Your task to perform on an android device: Open notification settings Image 0: 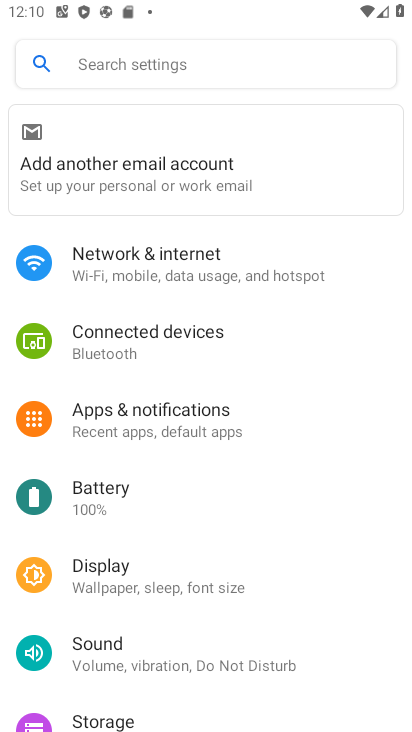
Step 0: drag from (306, 617) to (267, 257)
Your task to perform on an android device: Open notification settings Image 1: 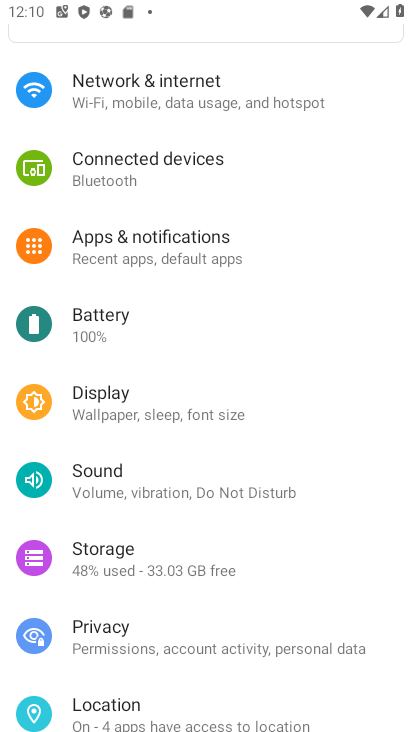
Step 1: drag from (350, 591) to (337, 267)
Your task to perform on an android device: Open notification settings Image 2: 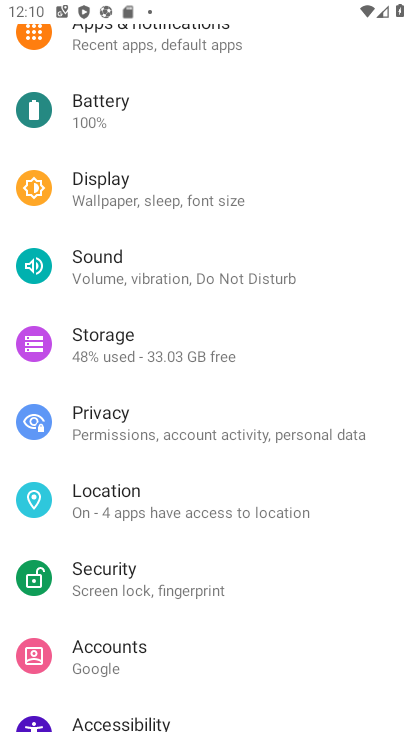
Step 2: click (190, 47)
Your task to perform on an android device: Open notification settings Image 3: 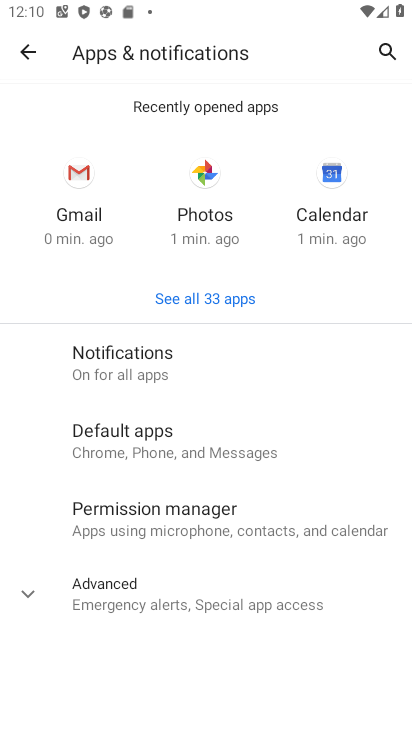
Step 3: click (141, 361)
Your task to perform on an android device: Open notification settings Image 4: 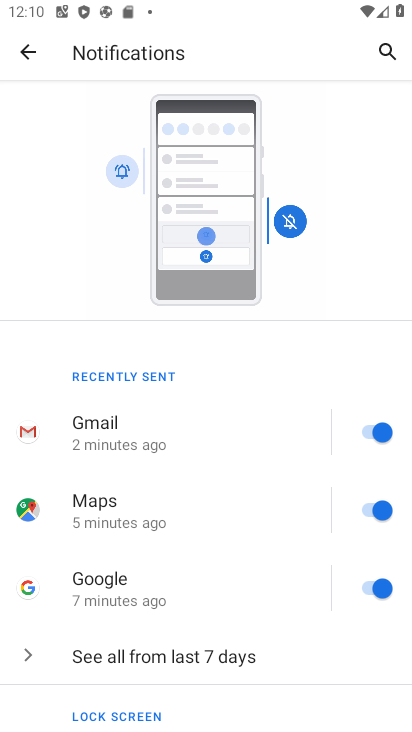
Step 4: task complete